Your task to perform on an android device: What is the recent news? Image 0: 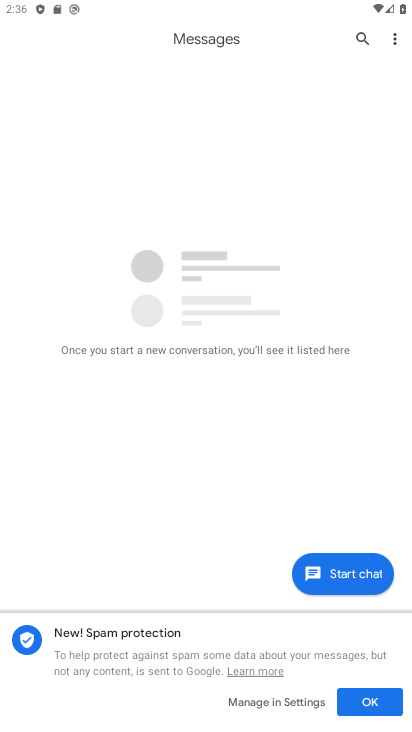
Step 0: press home button
Your task to perform on an android device: What is the recent news? Image 1: 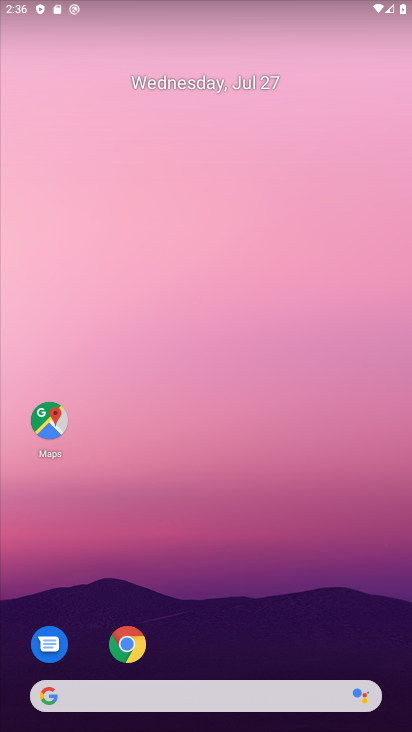
Step 1: click (170, 708)
Your task to perform on an android device: What is the recent news? Image 2: 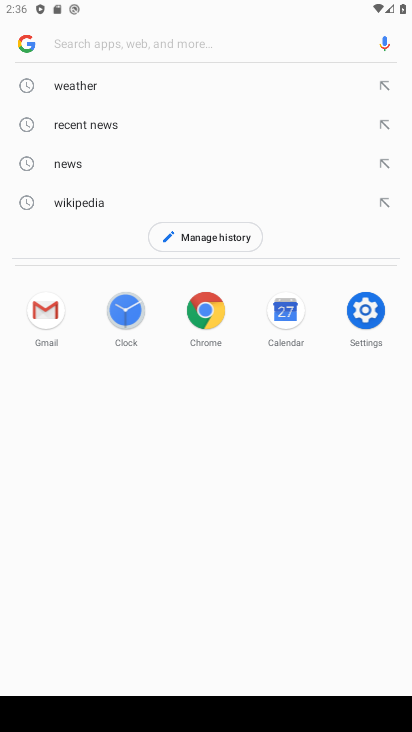
Step 2: click (89, 125)
Your task to perform on an android device: What is the recent news? Image 3: 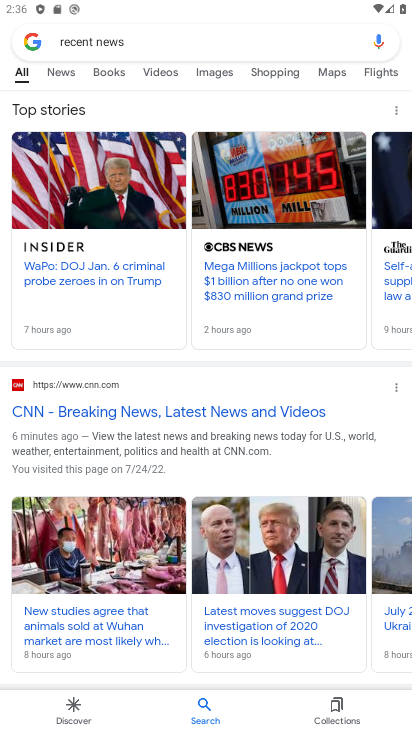
Step 3: task complete